Your task to perform on an android device: Open location settings Image 0: 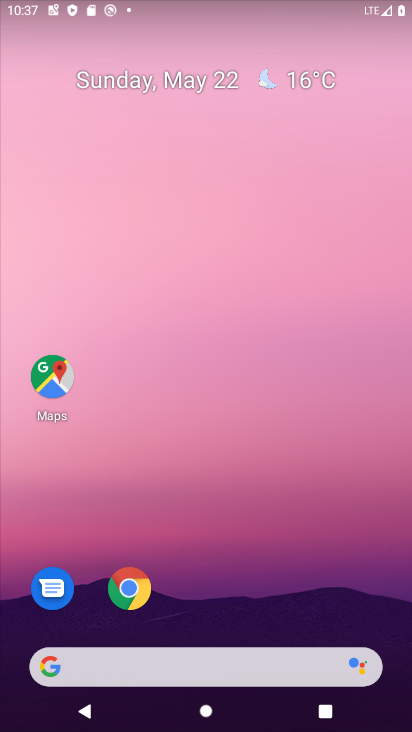
Step 0: drag from (215, 625) to (234, 144)
Your task to perform on an android device: Open location settings Image 1: 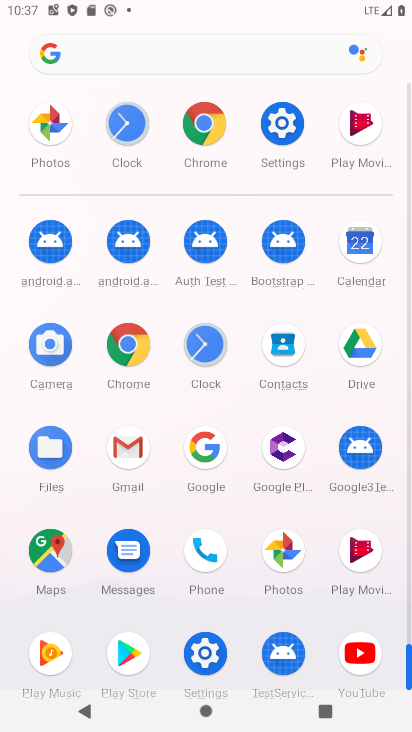
Step 1: click (269, 141)
Your task to perform on an android device: Open location settings Image 2: 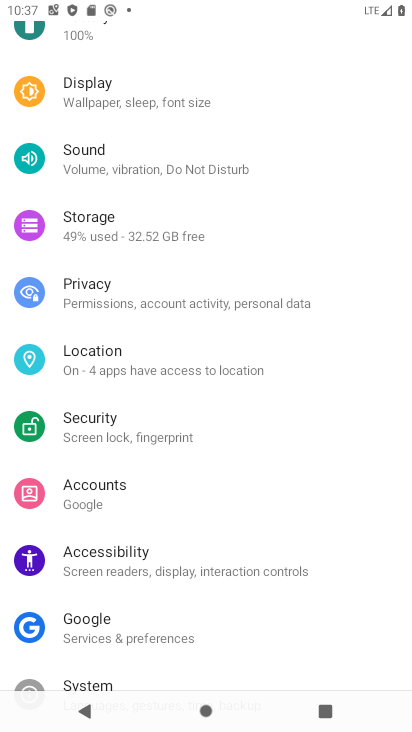
Step 2: click (155, 364)
Your task to perform on an android device: Open location settings Image 3: 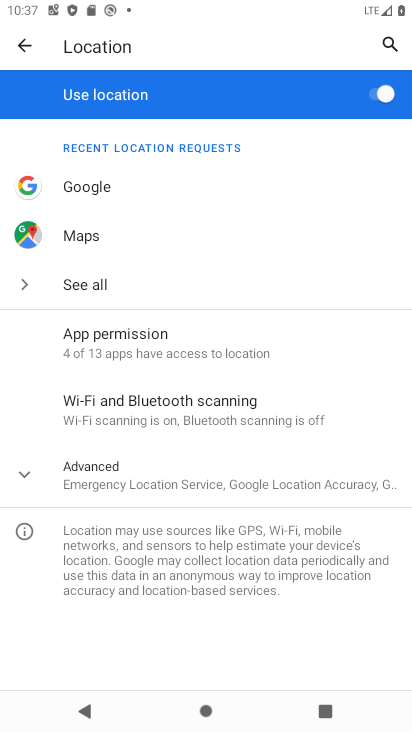
Step 3: task complete